Your task to perform on an android device: clear history in the chrome app Image 0: 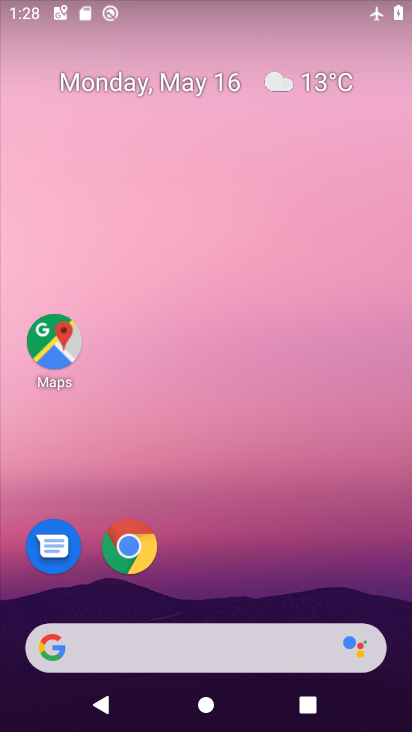
Step 0: click (128, 540)
Your task to perform on an android device: clear history in the chrome app Image 1: 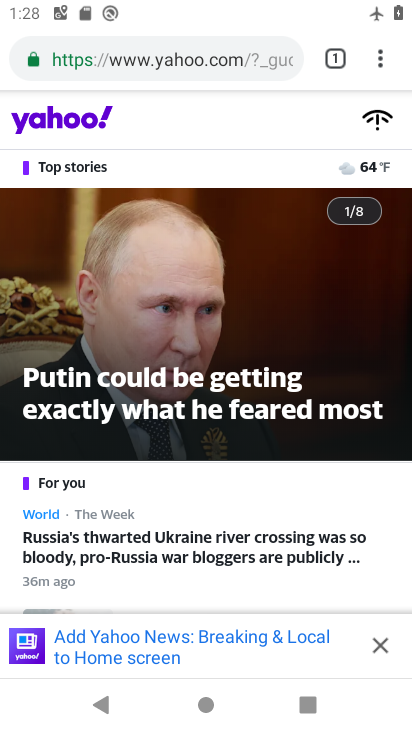
Step 1: click (381, 67)
Your task to perform on an android device: clear history in the chrome app Image 2: 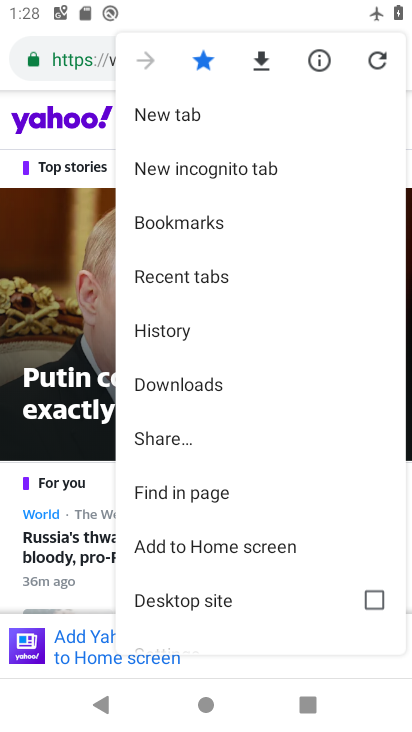
Step 2: click (180, 327)
Your task to perform on an android device: clear history in the chrome app Image 3: 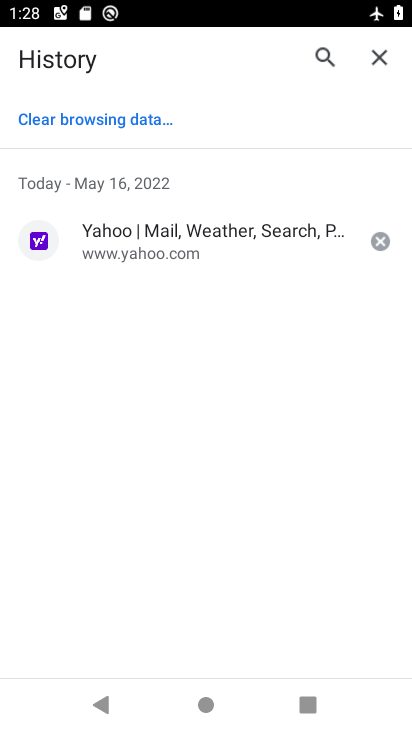
Step 3: click (107, 114)
Your task to perform on an android device: clear history in the chrome app Image 4: 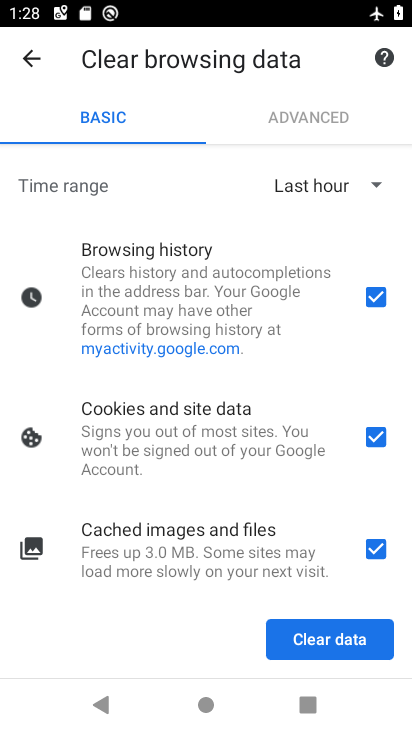
Step 4: click (368, 437)
Your task to perform on an android device: clear history in the chrome app Image 5: 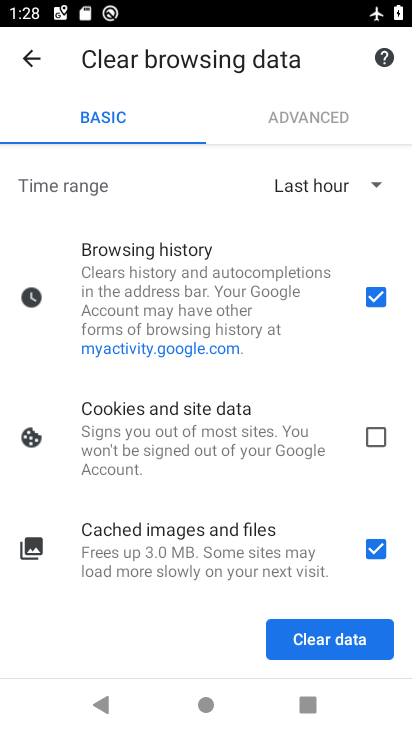
Step 5: click (372, 551)
Your task to perform on an android device: clear history in the chrome app Image 6: 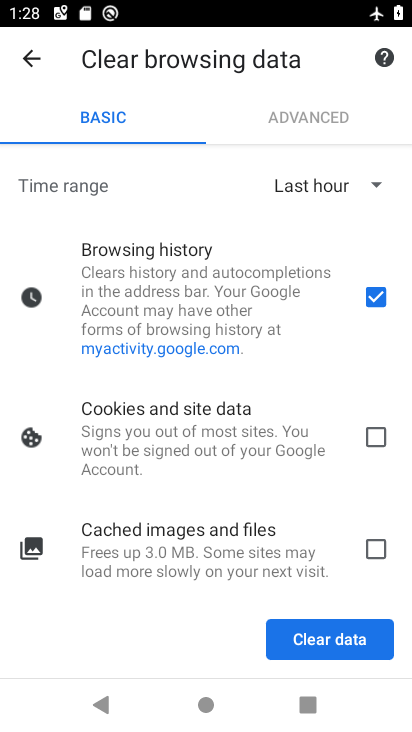
Step 6: click (330, 641)
Your task to perform on an android device: clear history in the chrome app Image 7: 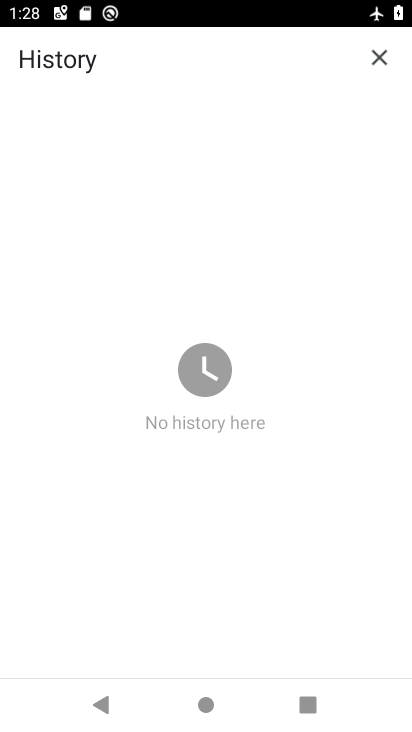
Step 7: task complete